Your task to perform on an android device: Open display settings Image 0: 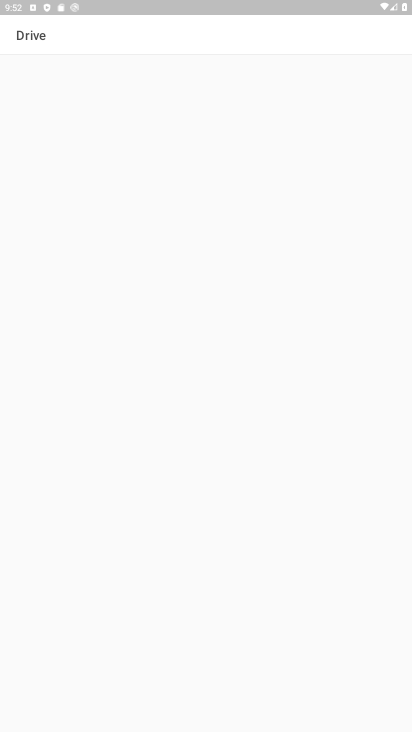
Step 0: press home button
Your task to perform on an android device: Open display settings Image 1: 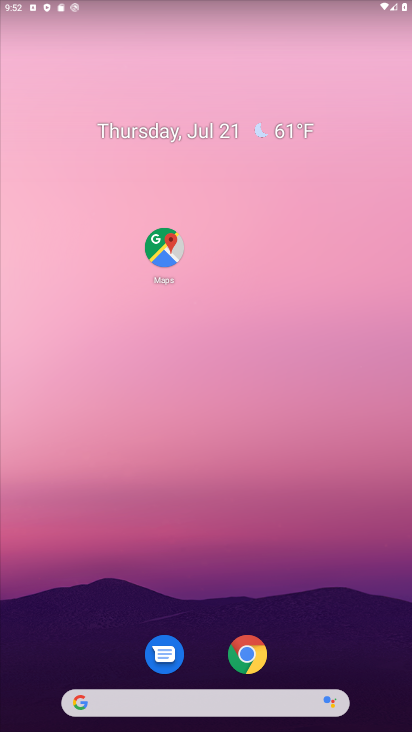
Step 1: click (226, 55)
Your task to perform on an android device: Open display settings Image 2: 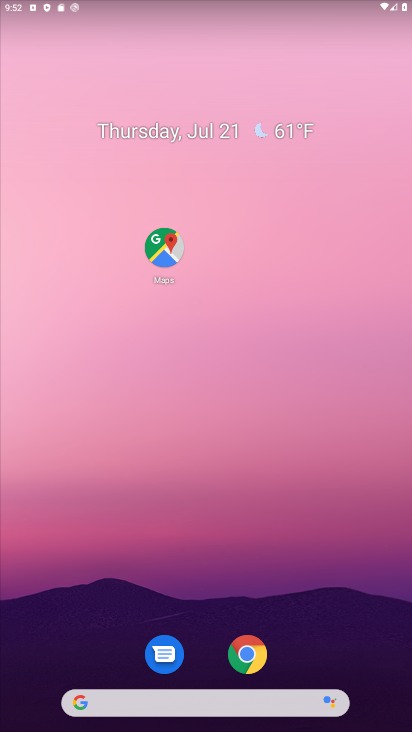
Step 2: drag from (40, 693) to (183, 44)
Your task to perform on an android device: Open display settings Image 3: 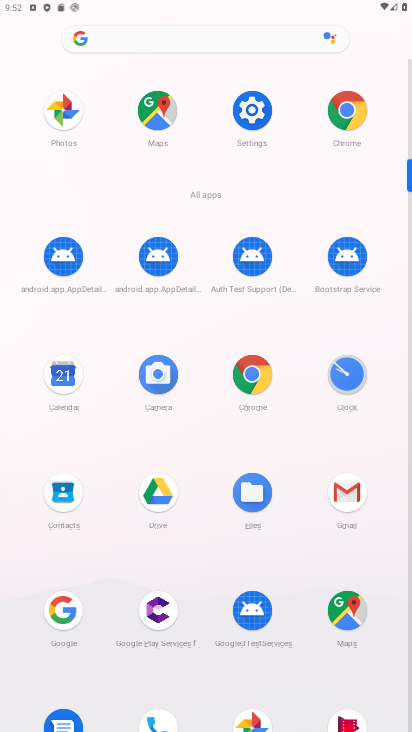
Step 3: click (242, 110)
Your task to perform on an android device: Open display settings Image 4: 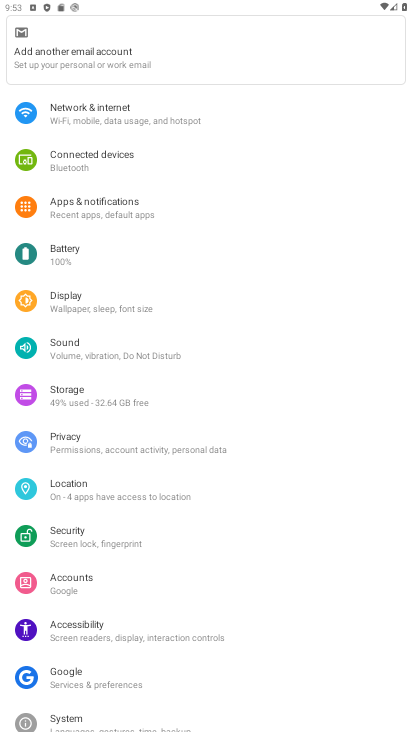
Step 4: click (91, 299)
Your task to perform on an android device: Open display settings Image 5: 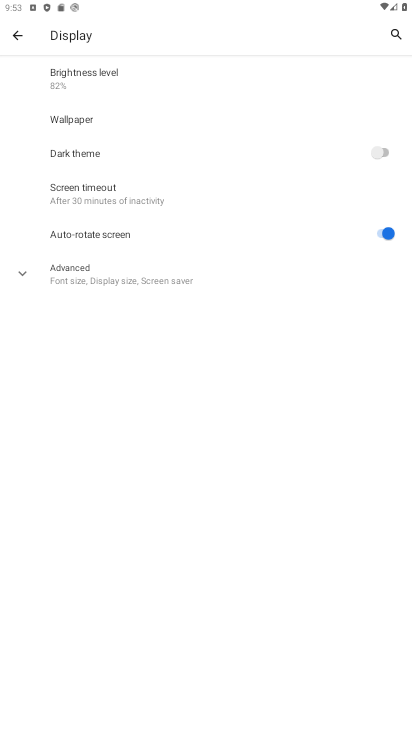
Step 5: task complete